Your task to perform on an android device: Add apple airpods pro to the cart on newegg.com Image 0: 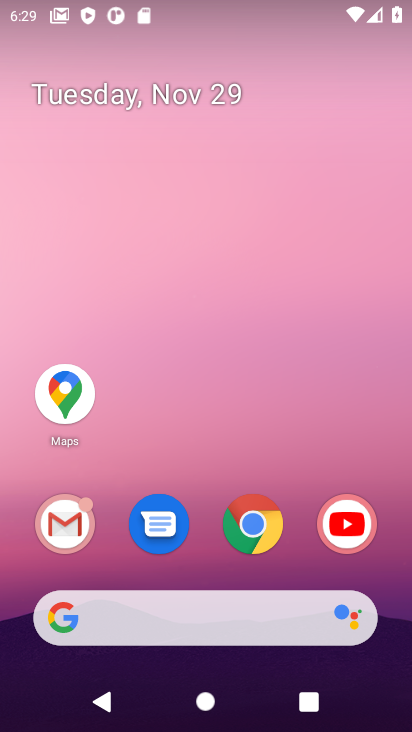
Step 0: click (259, 521)
Your task to perform on an android device: Add apple airpods pro to the cart on newegg.com Image 1: 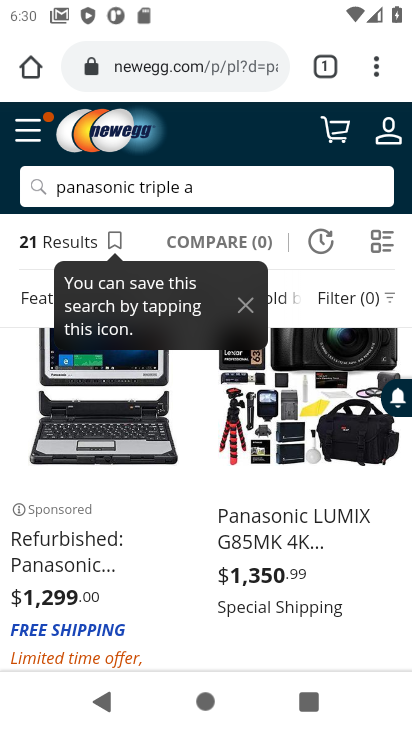
Step 1: click (215, 178)
Your task to perform on an android device: Add apple airpods pro to the cart on newegg.com Image 2: 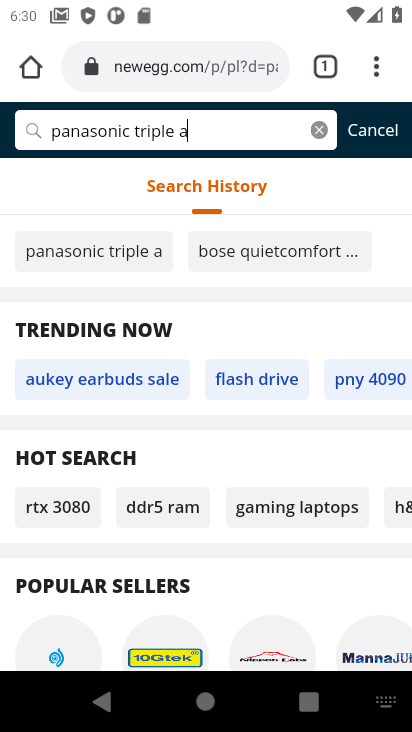
Step 2: click (318, 131)
Your task to perform on an android device: Add apple airpods pro to the cart on newegg.com Image 3: 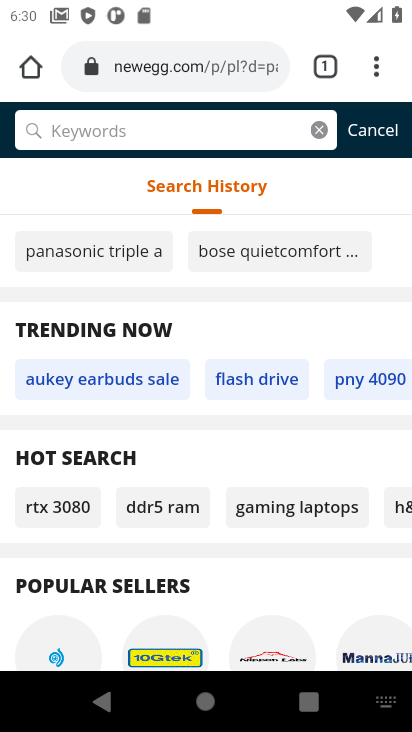
Step 3: type "apple airpods pro"
Your task to perform on an android device: Add apple airpods pro to the cart on newegg.com Image 4: 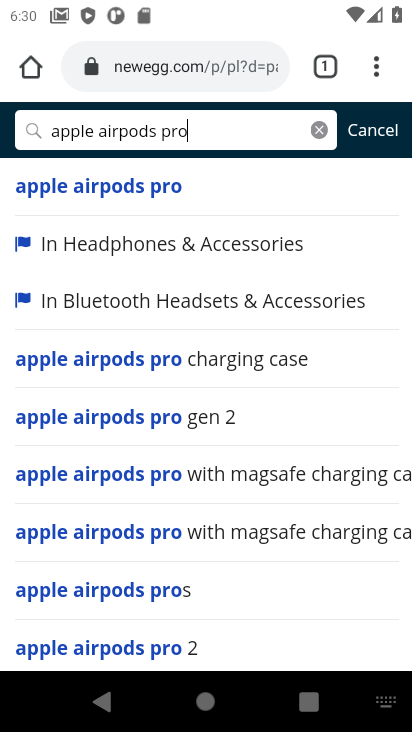
Step 4: click (140, 181)
Your task to perform on an android device: Add apple airpods pro to the cart on newegg.com Image 5: 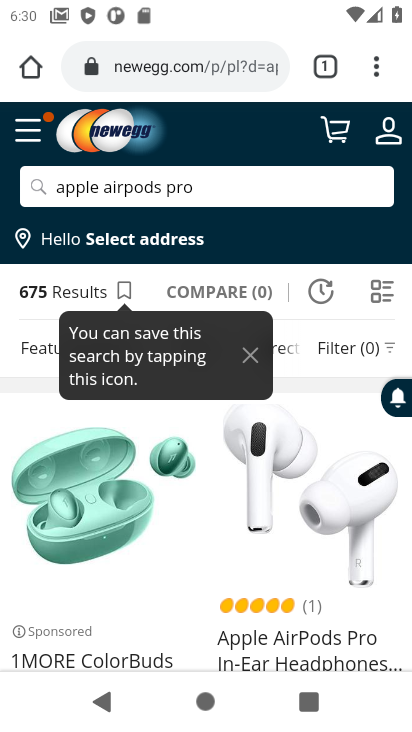
Step 5: drag from (176, 541) to (179, 283)
Your task to perform on an android device: Add apple airpods pro to the cart on newegg.com Image 6: 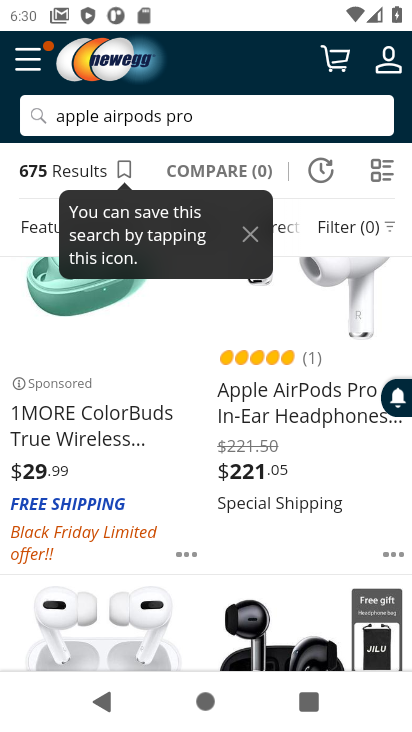
Step 6: click (292, 404)
Your task to perform on an android device: Add apple airpods pro to the cart on newegg.com Image 7: 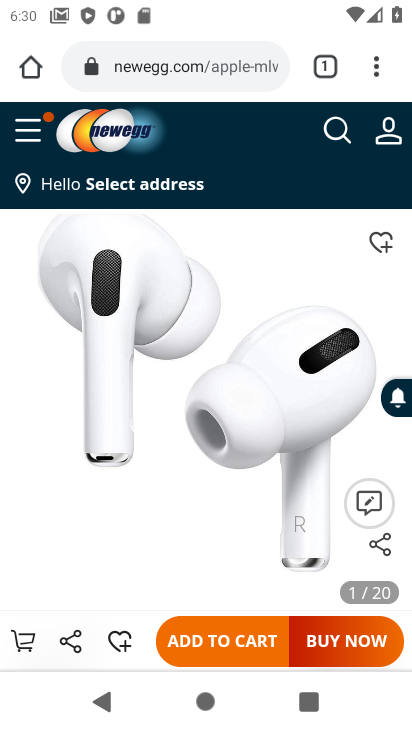
Step 7: click (228, 643)
Your task to perform on an android device: Add apple airpods pro to the cart on newegg.com Image 8: 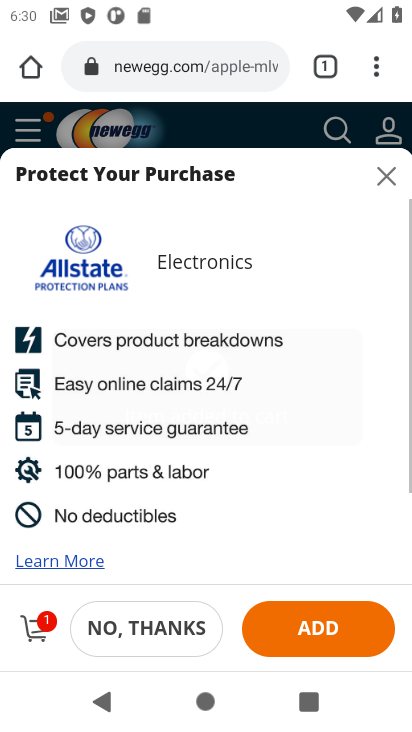
Step 8: task complete